Your task to perform on an android device: find which apps use the phone's location Image 0: 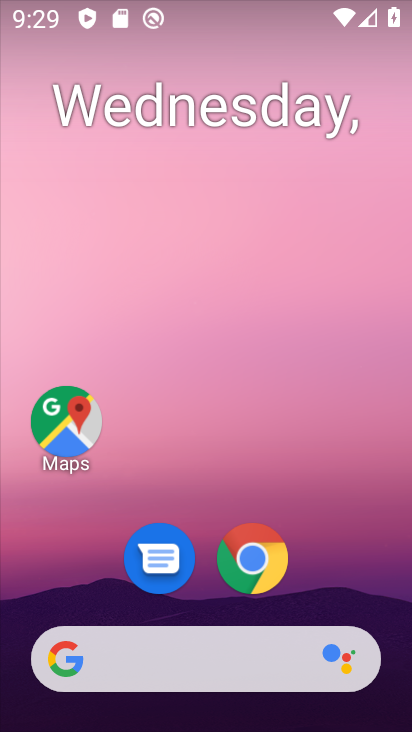
Step 0: drag from (22, 582) to (250, 150)
Your task to perform on an android device: find which apps use the phone's location Image 1: 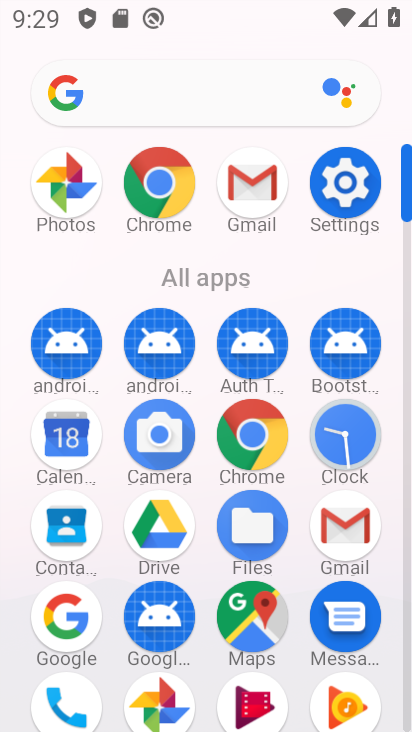
Step 1: click (337, 181)
Your task to perform on an android device: find which apps use the phone's location Image 2: 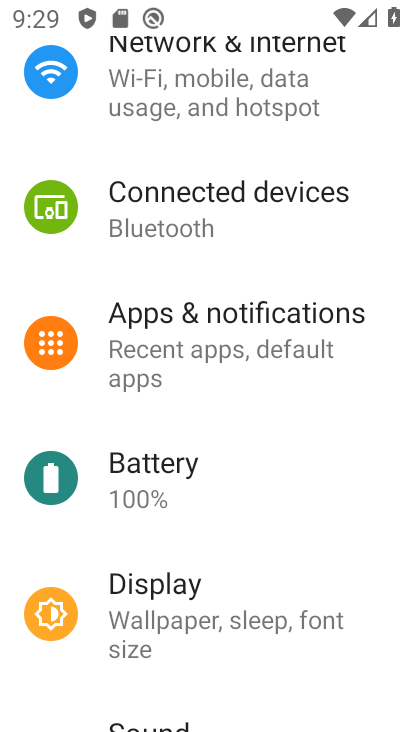
Step 2: drag from (114, 646) to (266, 209)
Your task to perform on an android device: find which apps use the phone's location Image 3: 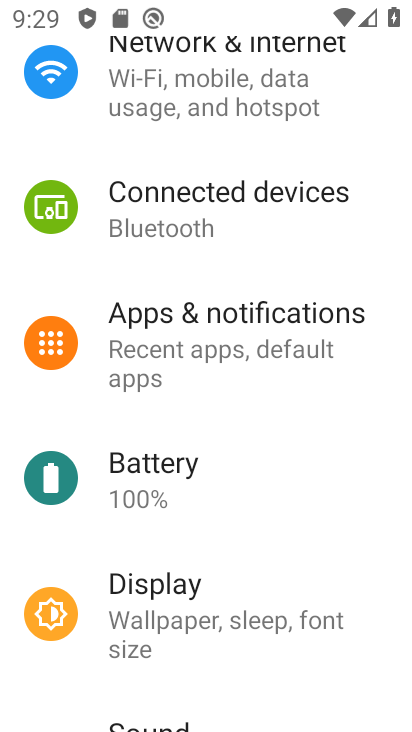
Step 3: drag from (21, 595) to (259, 170)
Your task to perform on an android device: find which apps use the phone's location Image 4: 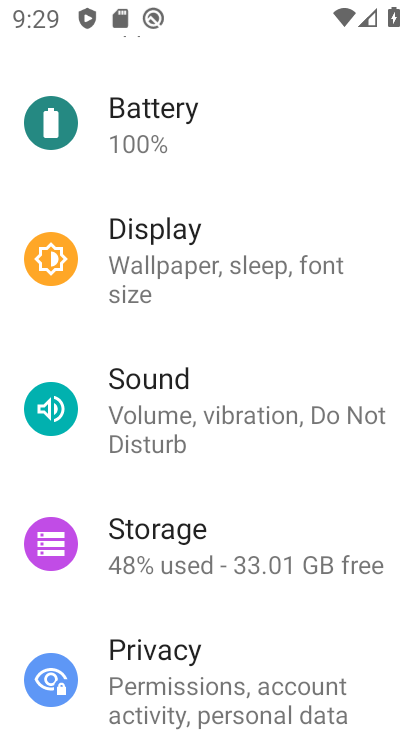
Step 4: drag from (55, 533) to (237, 209)
Your task to perform on an android device: find which apps use the phone's location Image 5: 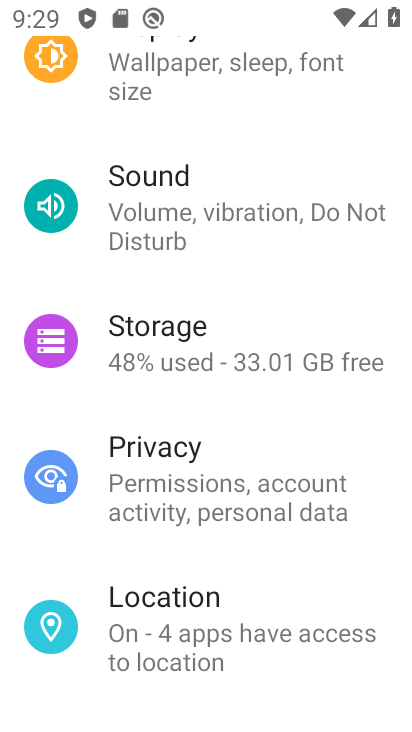
Step 5: click (157, 613)
Your task to perform on an android device: find which apps use the phone's location Image 6: 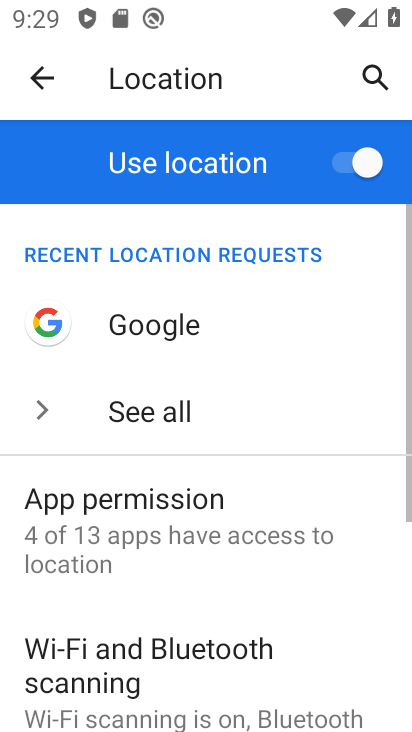
Step 6: click (154, 524)
Your task to perform on an android device: find which apps use the phone's location Image 7: 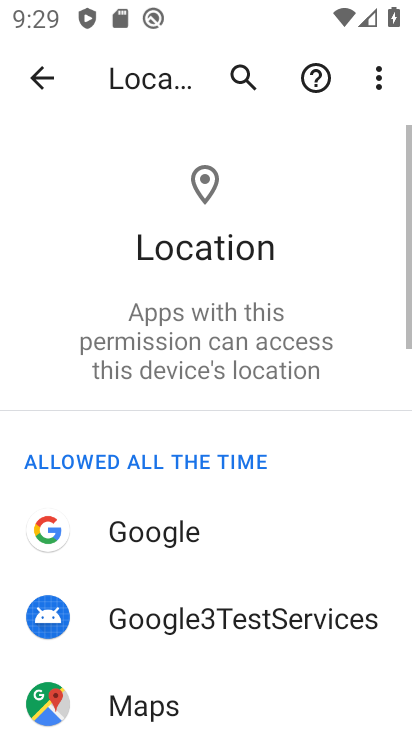
Step 7: task complete